Your task to perform on an android device: find photos in the google photos app Image 0: 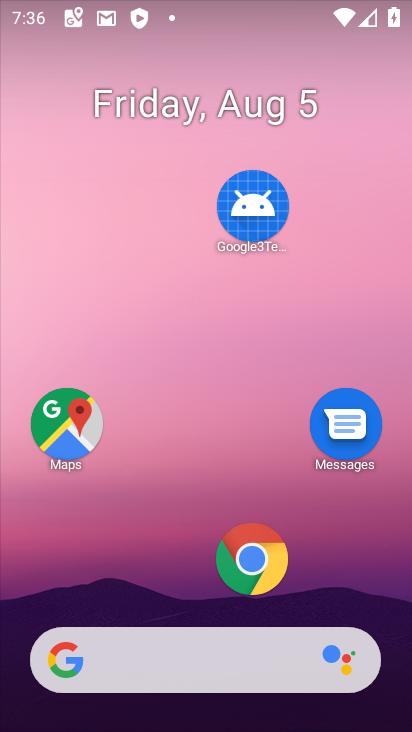
Step 0: drag from (182, 606) to (263, 2)
Your task to perform on an android device: find photos in the google photos app Image 1: 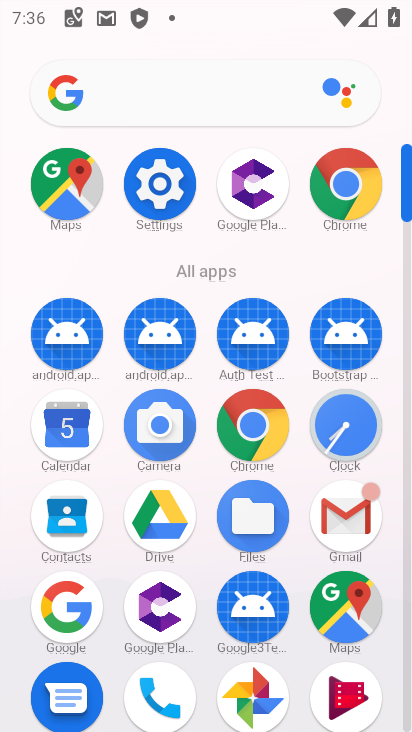
Step 1: click (246, 690)
Your task to perform on an android device: find photos in the google photos app Image 2: 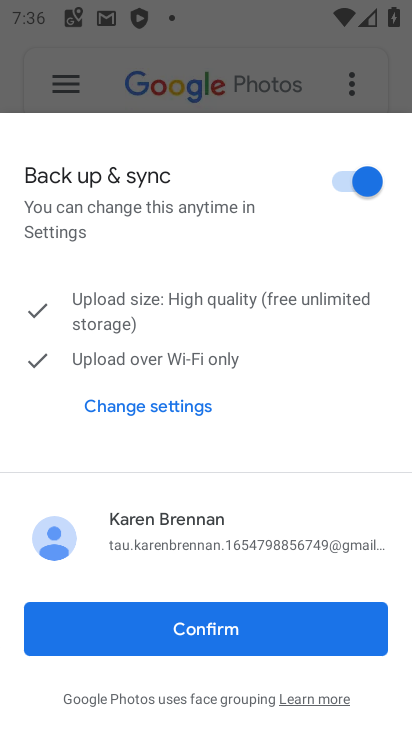
Step 2: click (255, 624)
Your task to perform on an android device: find photos in the google photos app Image 3: 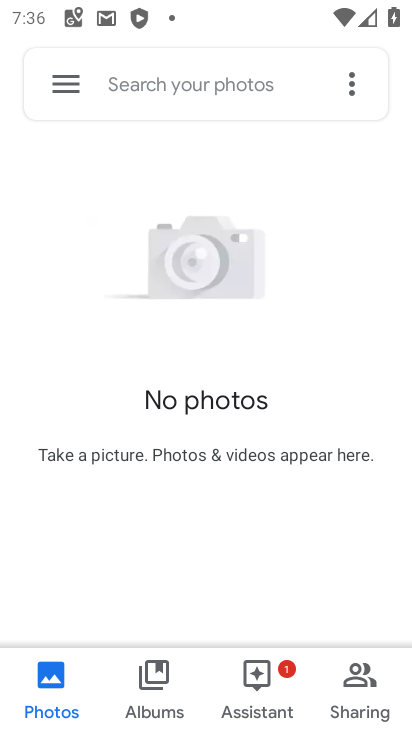
Step 3: task complete